Your task to perform on an android device: toggle notification dots Image 0: 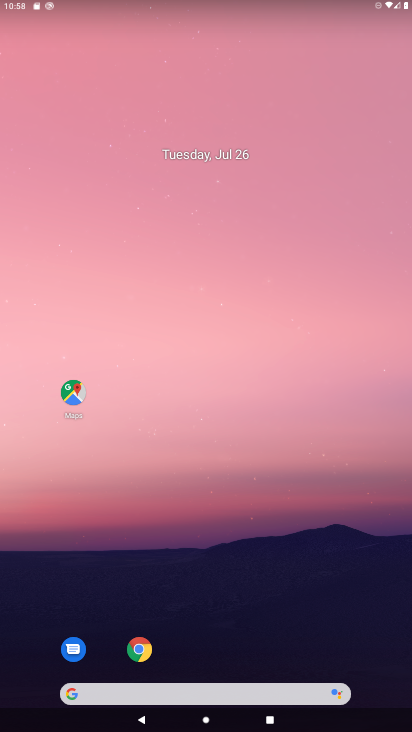
Step 0: drag from (144, 643) to (139, 183)
Your task to perform on an android device: toggle notification dots Image 1: 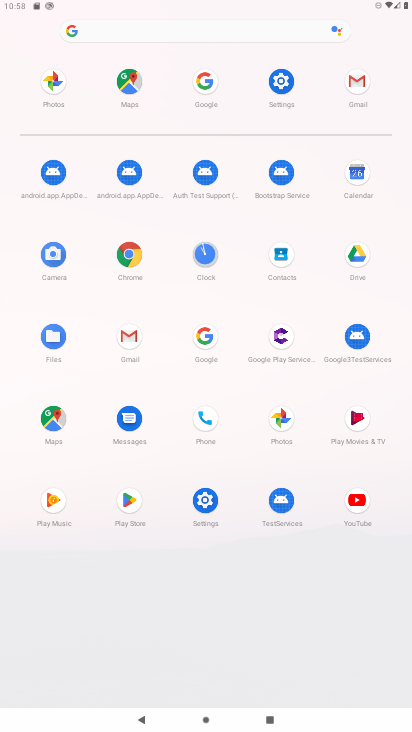
Step 1: click (281, 86)
Your task to perform on an android device: toggle notification dots Image 2: 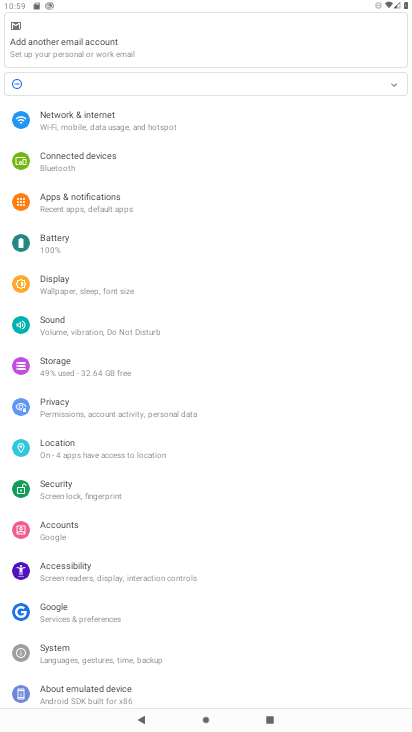
Step 2: click (80, 205)
Your task to perform on an android device: toggle notification dots Image 3: 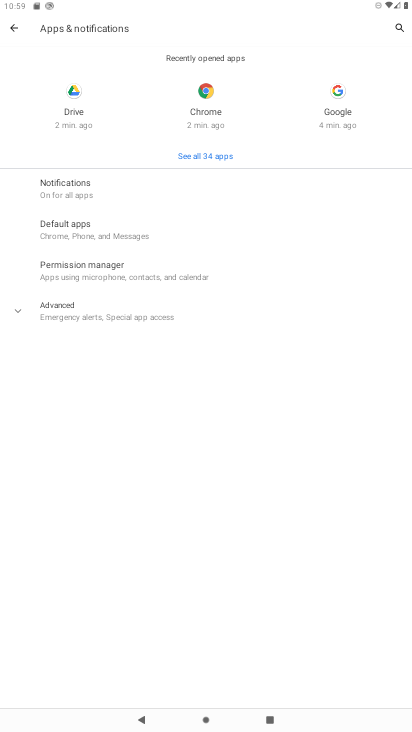
Step 3: click (44, 190)
Your task to perform on an android device: toggle notification dots Image 4: 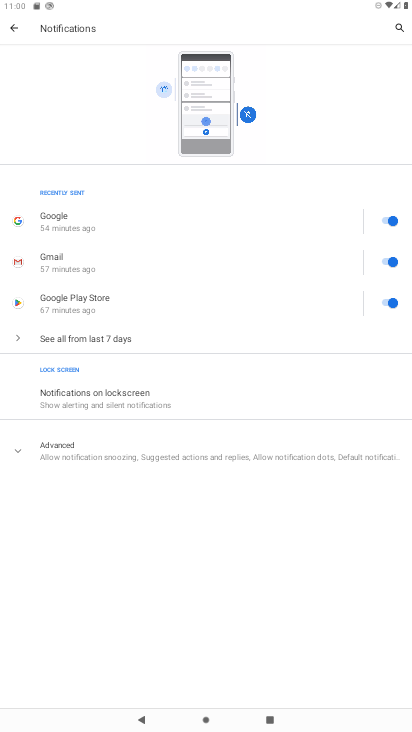
Step 4: click (92, 447)
Your task to perform on an android device: toggle notification dots Image 5: 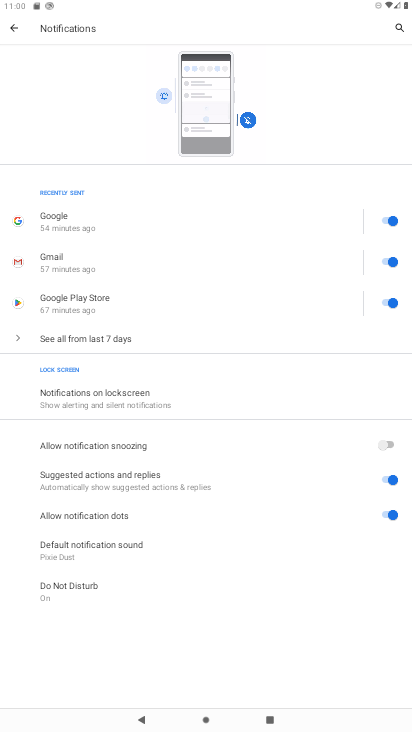
Step 5: click (387, 510)
Your task to perform on an android device: toggle notification dots Image 6: 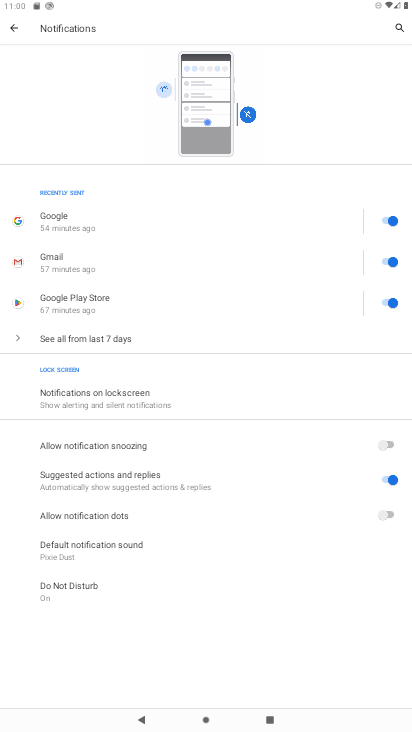
Step 6: task complete